Your task to perform on an android device: turn notification dots off Image 0: 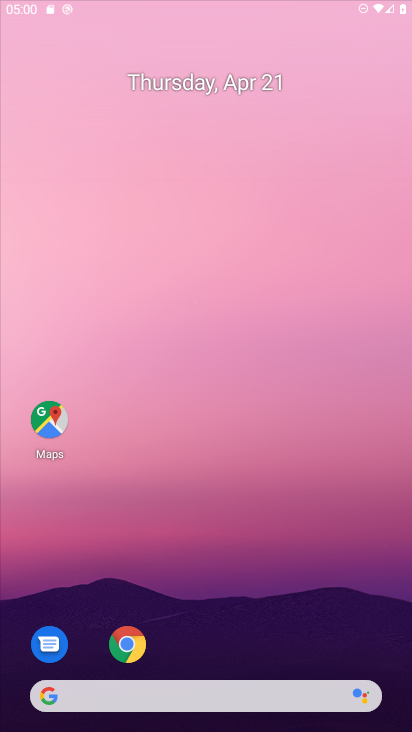
Step 0: click (291, 189)
Your task to perform on an android device: turn notification dots off Image 1: 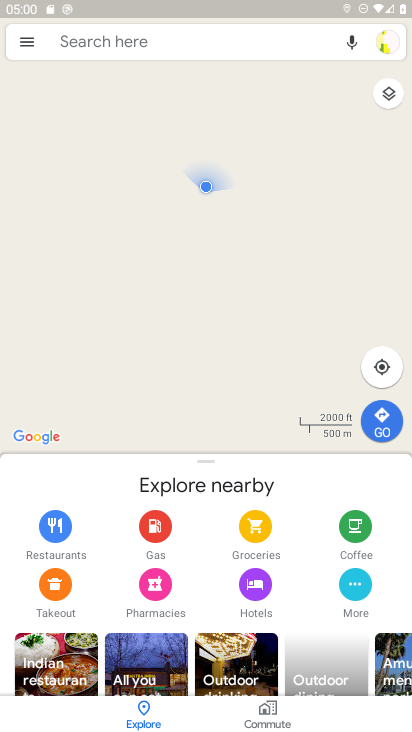
Step 1: press home button
Your task to perform on an android device: turn notification dots off Image 2: 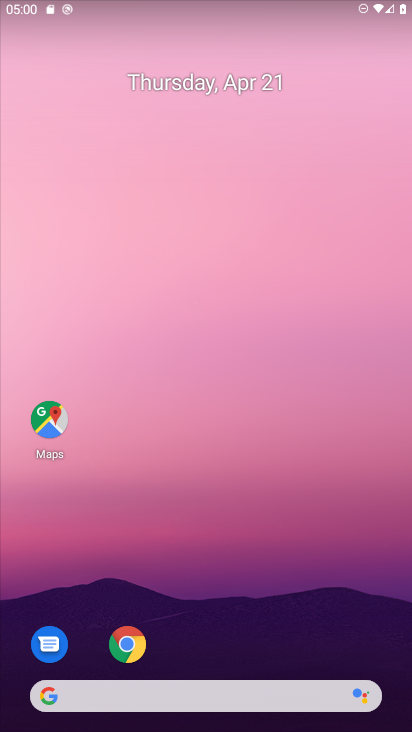
Step 2: drag from (253, 547) to (286, 257)
Your task to perform on an android device: turn notification dots off Image 3: 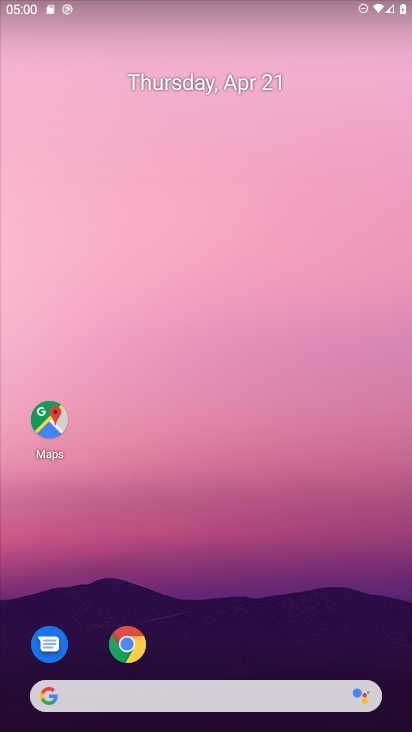
Step 3: drag from (254, 623) to (295, 166)
Your task to perform on an android device: turn notification dots off Image 4: 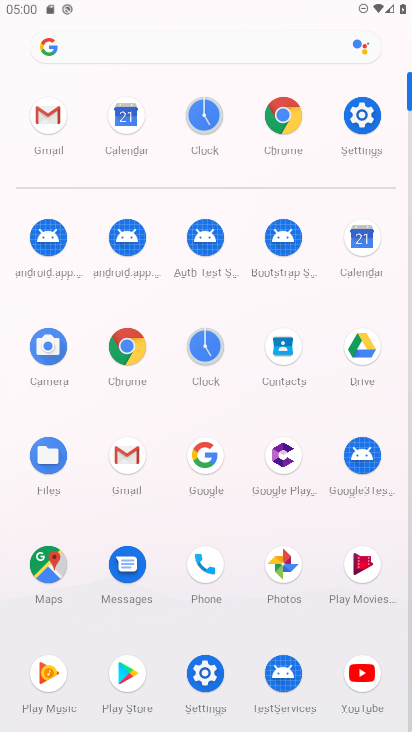
Step 4: click (376, 115)
Your task to perform on an android device: turn notification dots off Image 5: 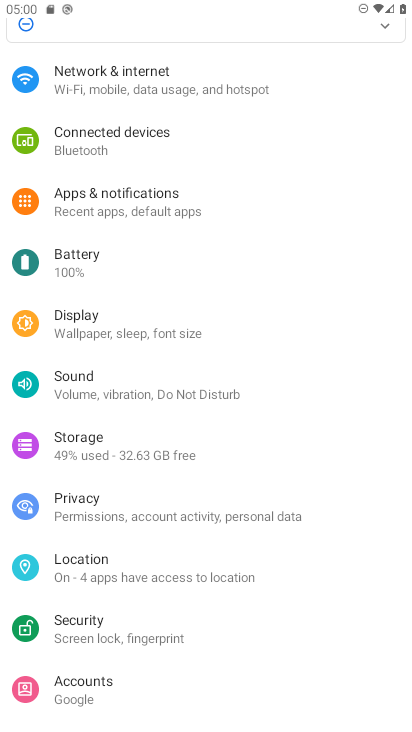
Step 5: drag from (206, 524) to (311, 137)
Your task to perform on an android device: turn notification dots off Image 6: 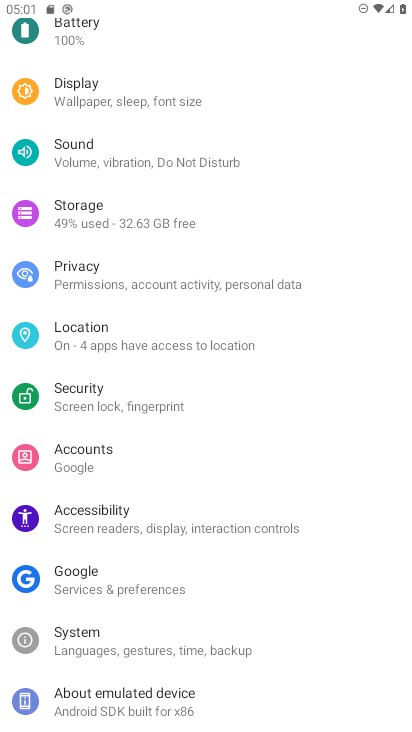
Step 6: drag from (176, 525) to (303, 167)
Your task to perform on an android device: turn notification dots off Image 7: 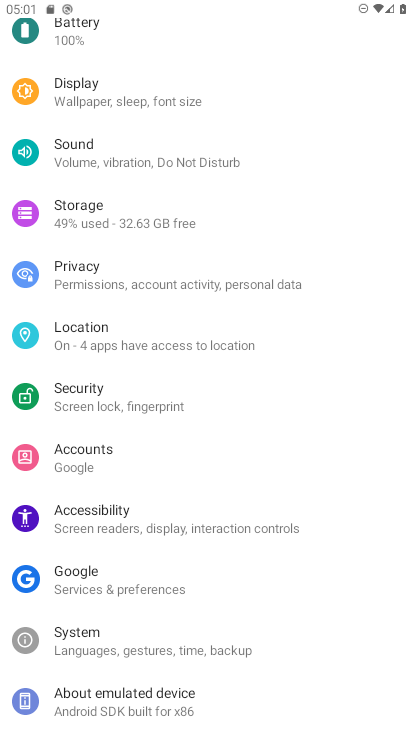
Step 7: drag from (260, 154) to (205, 461)
Your task to perform on an android device: turn notification dots off Image 8: 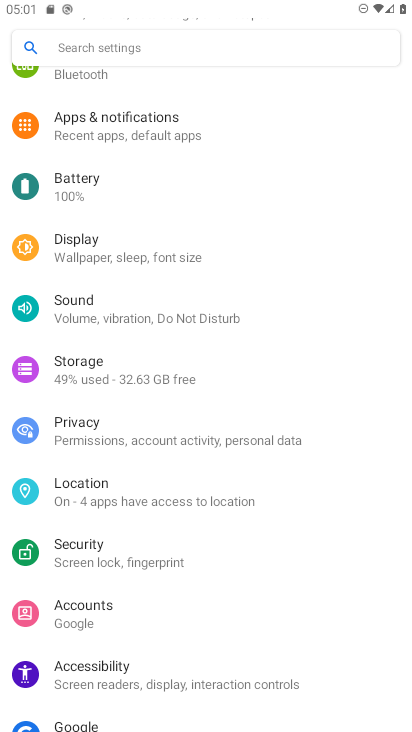
Step 8: drag from (143, 222) to (142, 490)
Your task to perform on an android device: turn notification dots off Image 9: 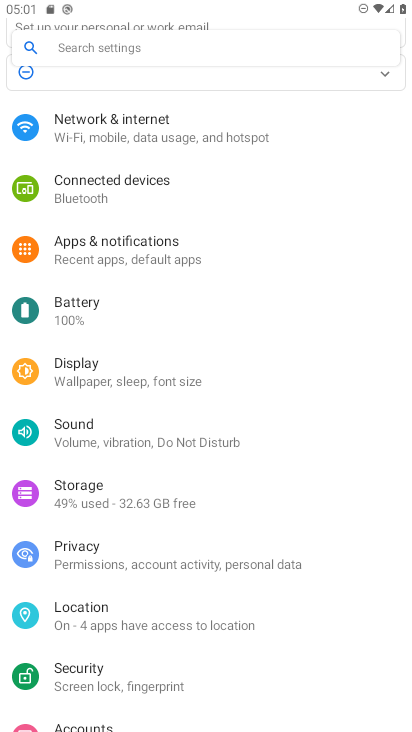
Step 9: click (117, 249)
Your task to perform on an android device: turn notification dots off Image 10: 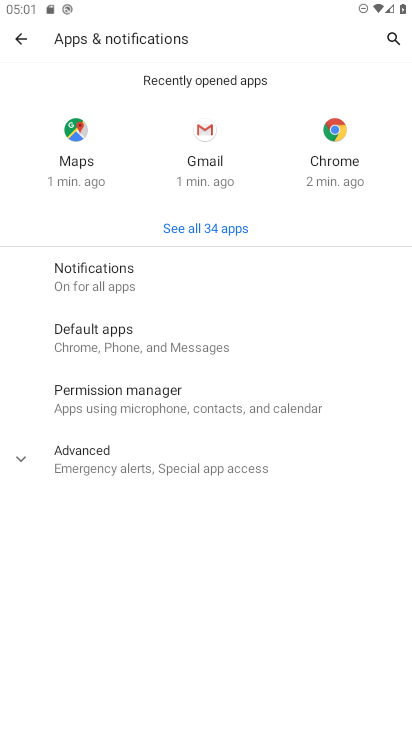
Step 10: click (115, 270)
Your task to perform on an android device: turn notification dots off Image 11: 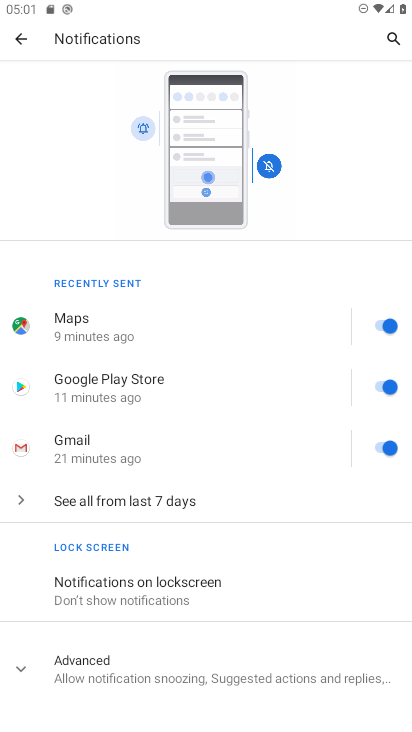
Step 11: drag from (237, 599) to (328, 163)
Your task to perform on an android device: turn notification dots off Image 12: 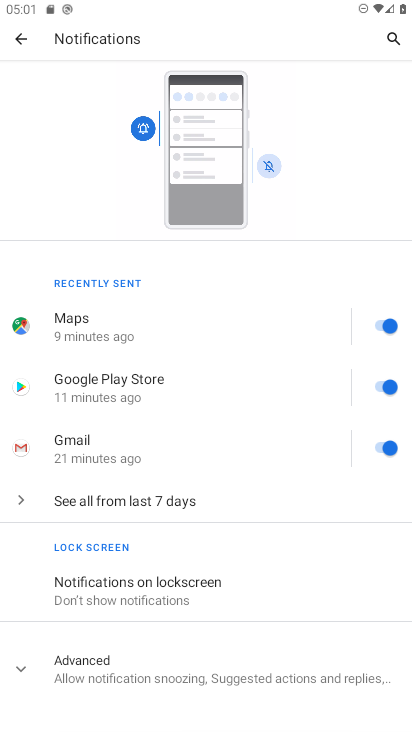
Step 12: click (154, 669)
Your task to perform on an android device: turn notification dots off Image 13: 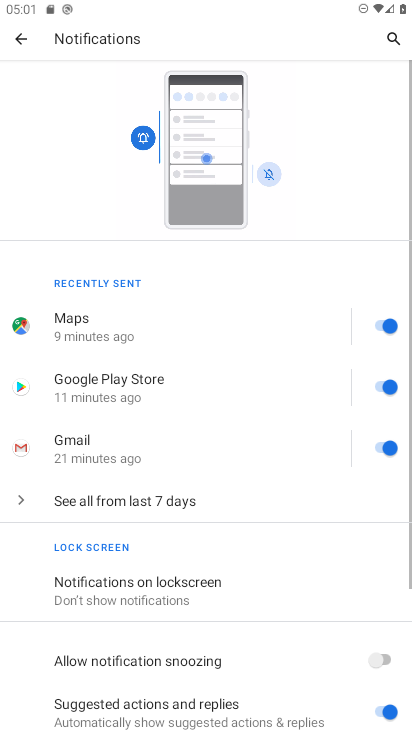
Step 13: drag from (318, 644) to (340, 209)
Your task to perform on an android device: turn notification dots off Image 14: 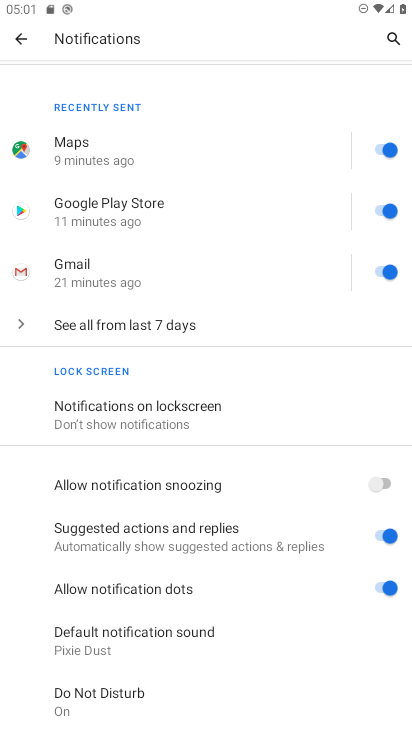
Step 14: click (358, 589)
Your task to perform on an android device: turn notification dots off Image 15: 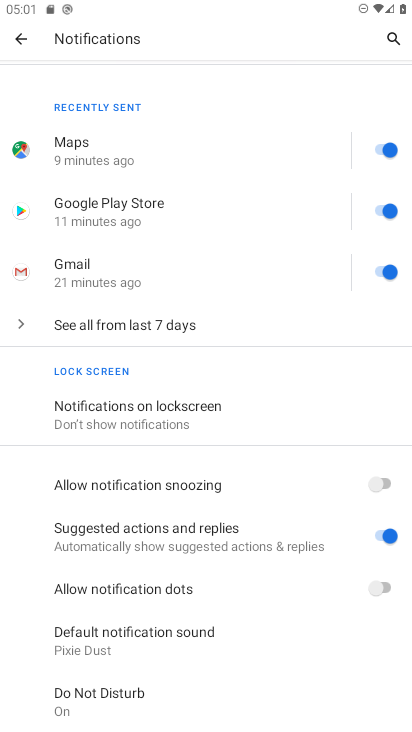
Step 15: task complete